Your task to perform on an android device: open chrome and create a bookmark for the current page Image 0: 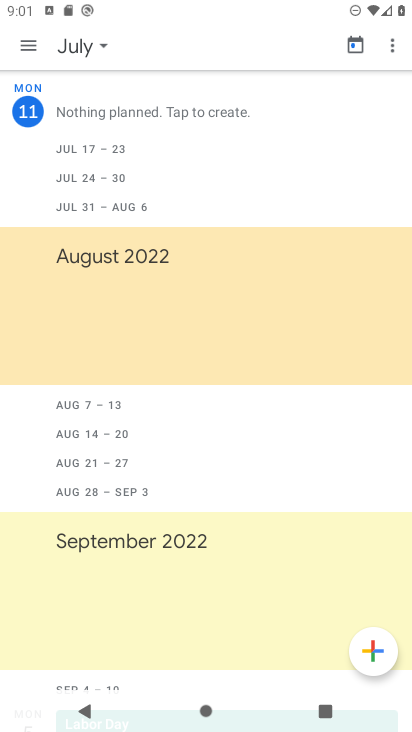
Step 0: press home button
Your task to perform on an android device: open chrome and create a bookmark for the current page Image 1: 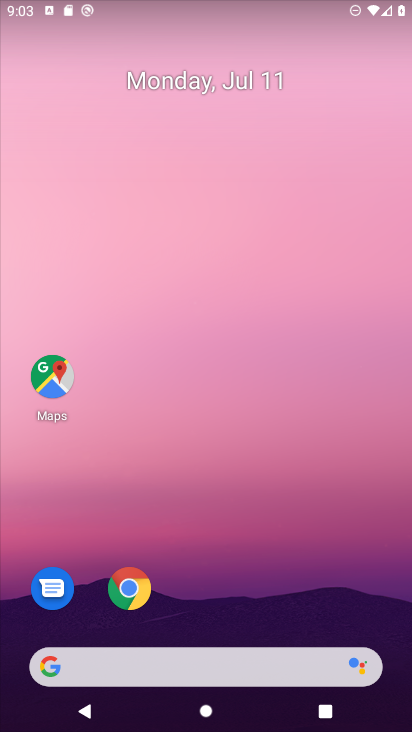
Step 1: drag from (394, 603) to (298, 111)
Your task to perform on an android device: open chrome and create a bookmark for the current page Image 2: 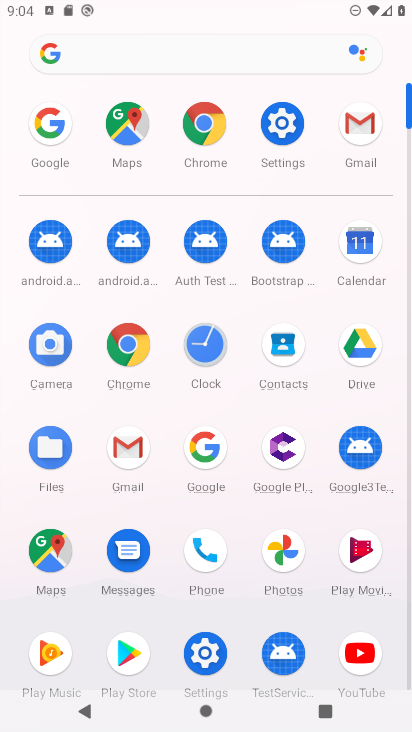
Step 2: click (194, 137)
Your task to perform on an android device: open chrome and create a bookmark for the current page Image 3: 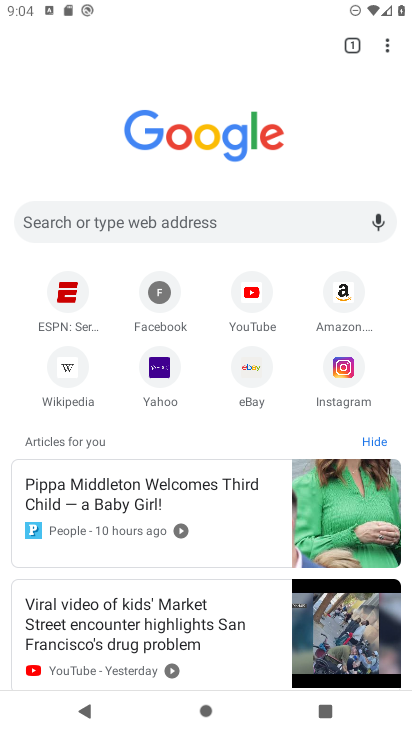
Step 3: click (387, 46)
Your task to perform on an android device: open chrome and create a bookmark for the current page Image 4: 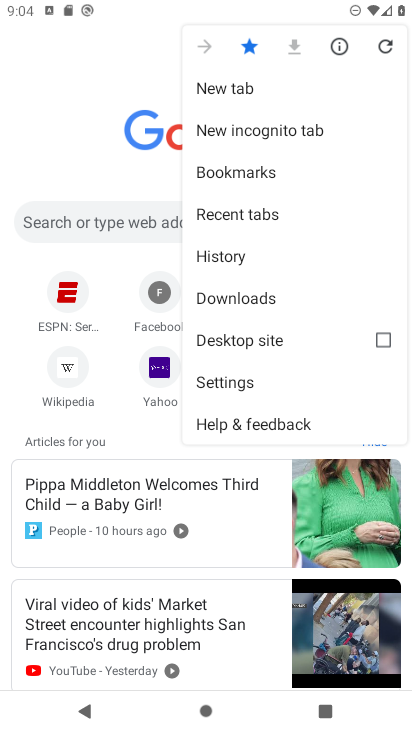
Step 4: task complete